Your task to perform on an android device: Open display settings Image 0: 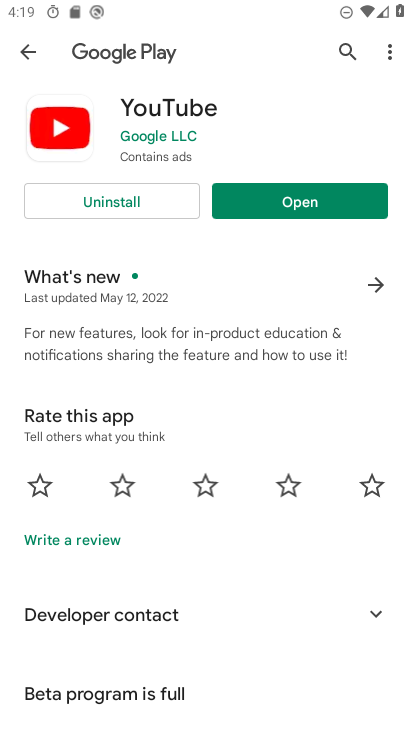
Step 0: press home button
Your task to perform on an android device: Open display settings Image 1: 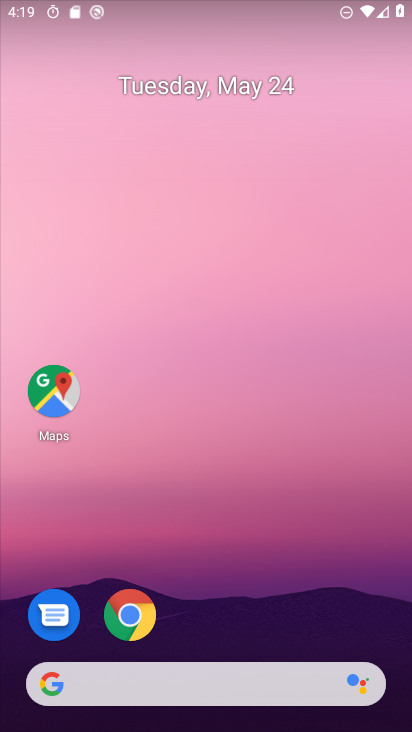
Step 1: drag from (240, 655) to (248, 183)
Your task to perform on an android device: Open display settings Image 2: 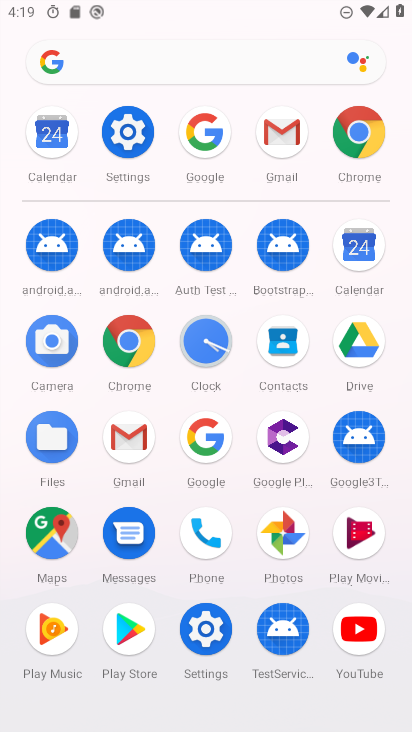
Step 2: click (131, 156)
Your task to perform on an android device: Open display settings Image 3: 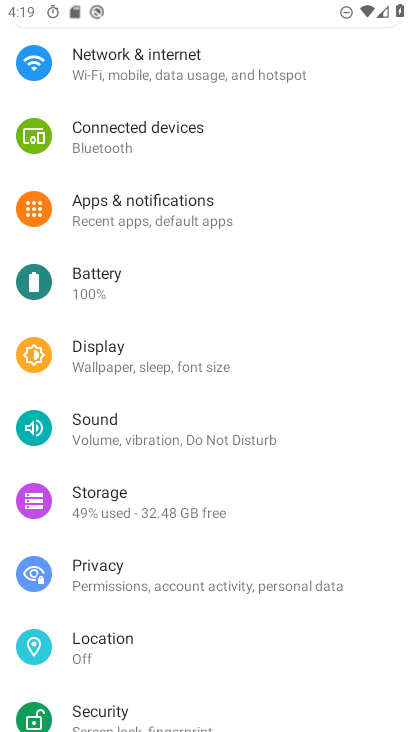
Step 3: click (143, 361)
Your task to perform on an android device: Open display settings Image 4: 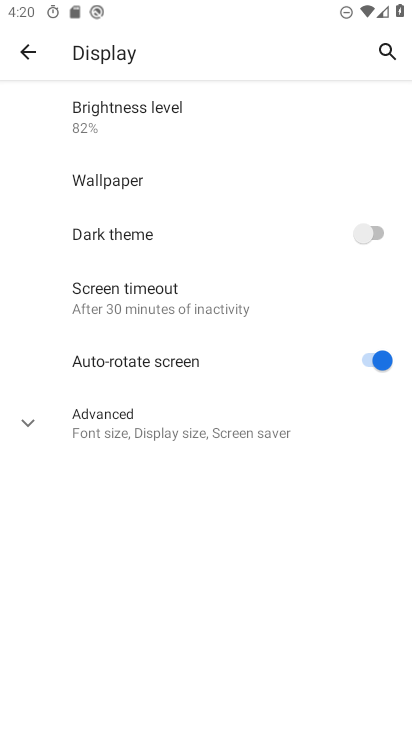
Step 4: task complete